Your task to perform on an android device: Open the web browser Image 0: 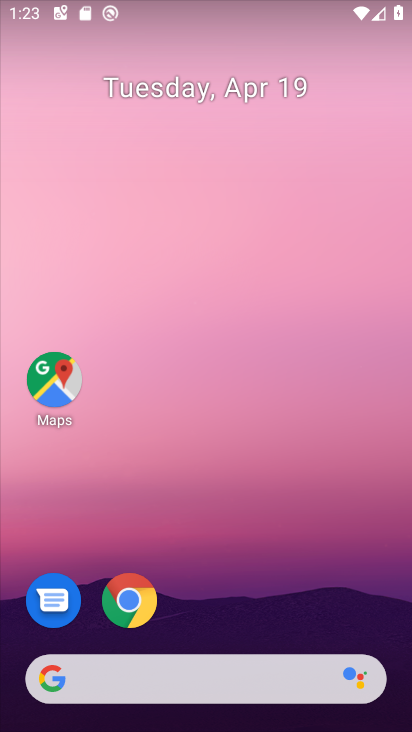
Step 0: drag from (286, 560) to (251, 7)
Your task to perform on an android device: Open the web browser Image 1: 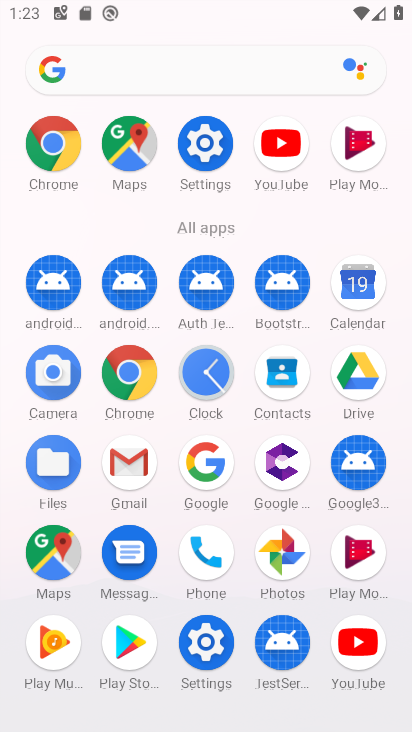
Step 1: click (126, 366)
Your task to perform on an android device: Open the web browser Image 2: 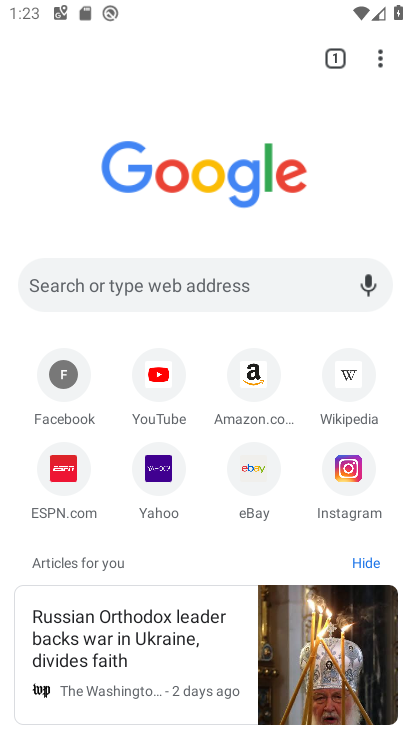
Step 2: task complete